Your task to perform on an android device: Search for sushi restaurants on Maps Image 0: 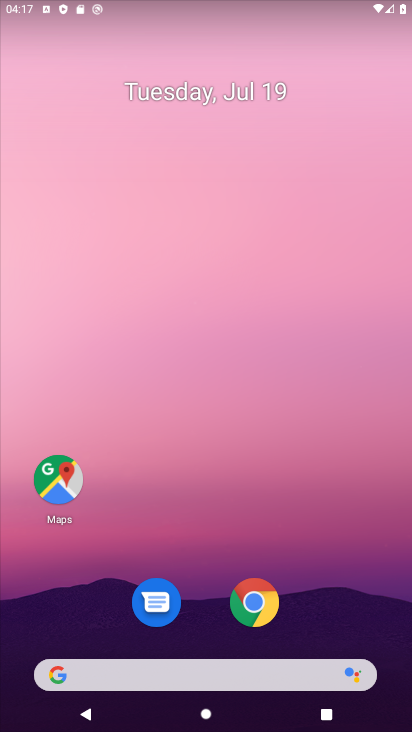
Step 0: drag from (191, 625) to (168, 142)
Your task to perform on an android device: Search for sushi restaurants on Maps Image 1: 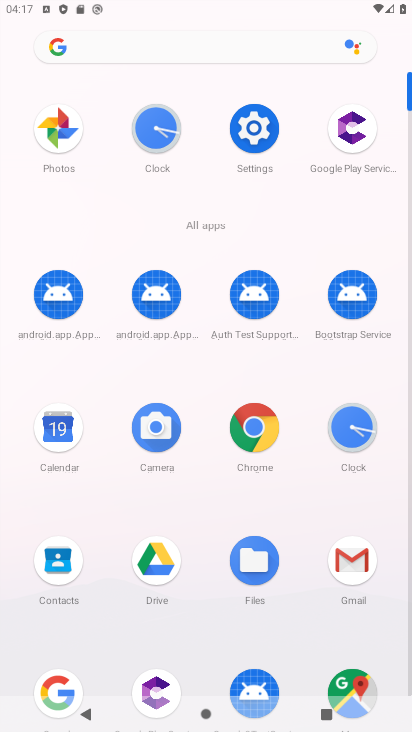
Step 1: click (345, 687)
Your task to perform on an android device: Search for sushi restaurants on Maps Image 2: 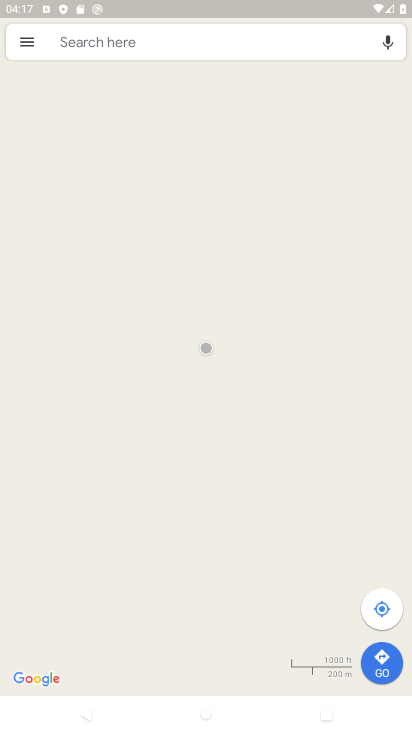
Step 2: click (234, 29)
Your task to perform on an android device: Search for sushi restaurants on Maps Image 3: 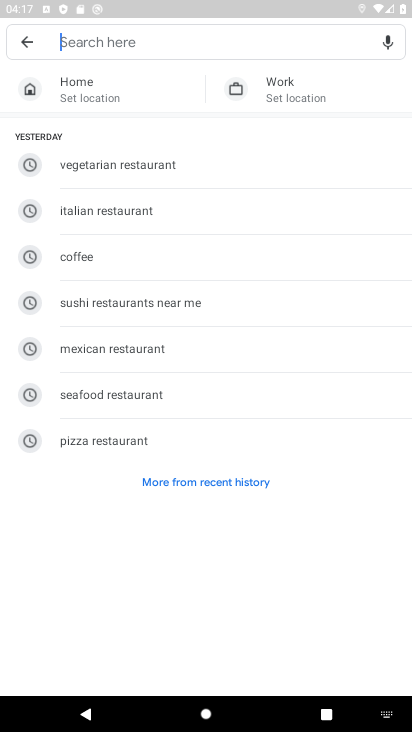
Step 3: type "sush restaurant"
Your task to perform on an android device: Search for sushi restaurants on Maps Image 4: 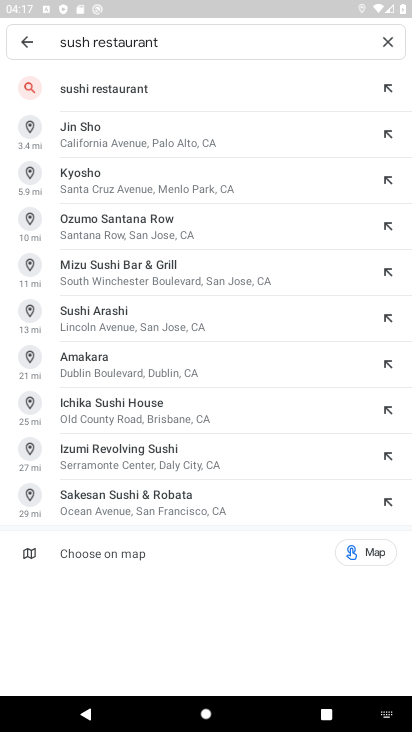
Step 4: click (119, 110)
Your task to perform on an android device: Search for sushi restaurants on Maps Image 5: 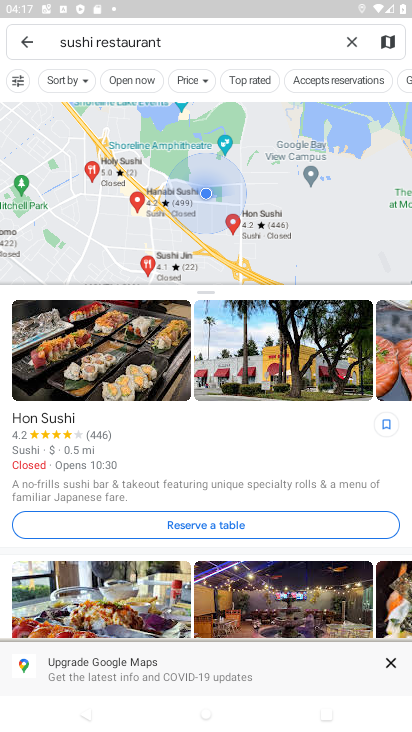
Step 5: task complete